Your task to perform on an android device: toggle wifi Image 0: 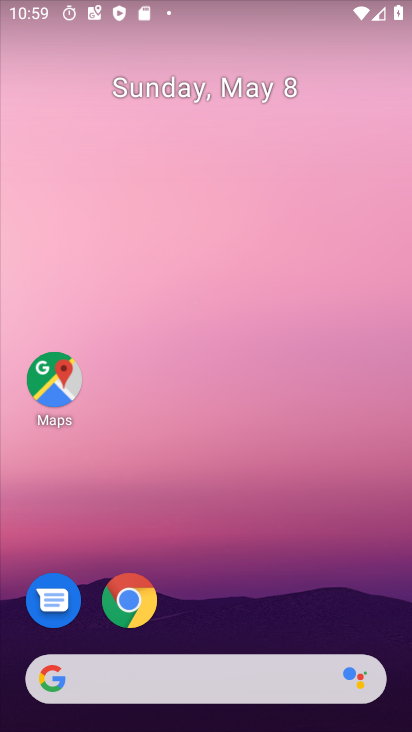
Step 0: drag from (317, 10) to (256, 429)
Your task to perform on an android device: toggle wifi Image 1: 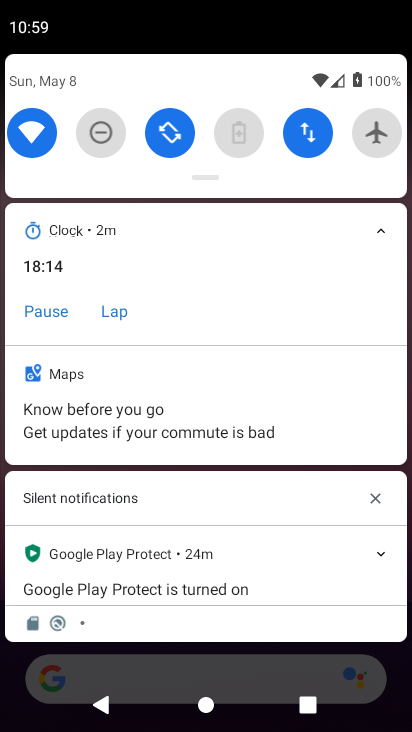
Step 1: click (12, 129)
Your task to perform on an android device: toggle wifi Image 2: 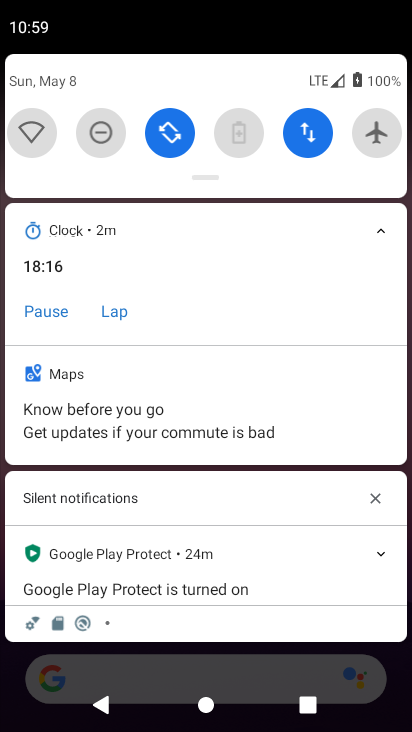
Step 2: task complete